Your task to perform on an android device: Toggle the flashlight Image 0: 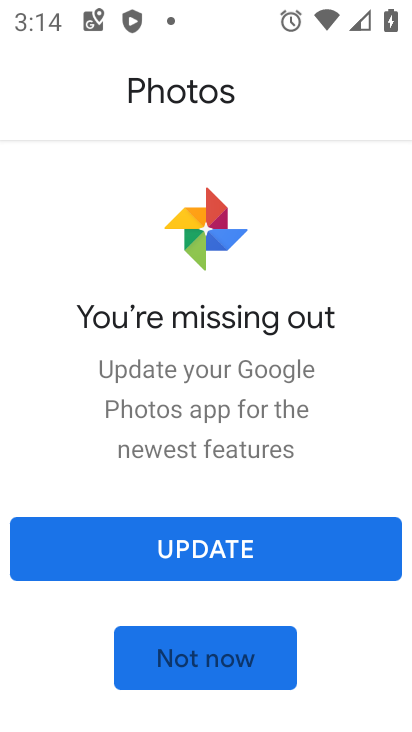
Step 0: press home button
Your task to perform on an android device: Toggle the flashlight Image 1: 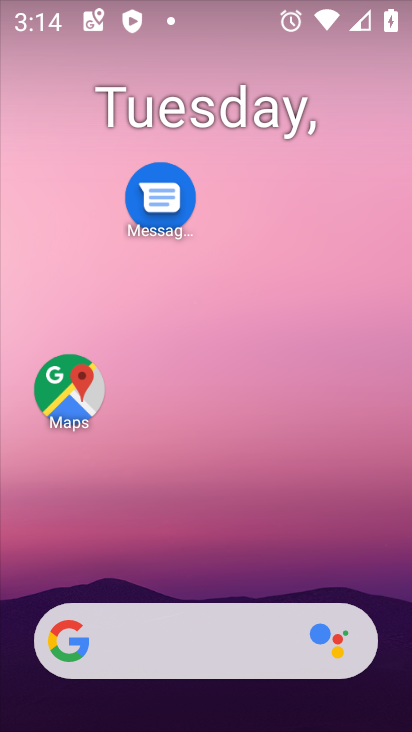
Step 1: drag from (197, 576) to (231, 252)
Your task to perform on an android device: Toggle the flashlight Image 2: 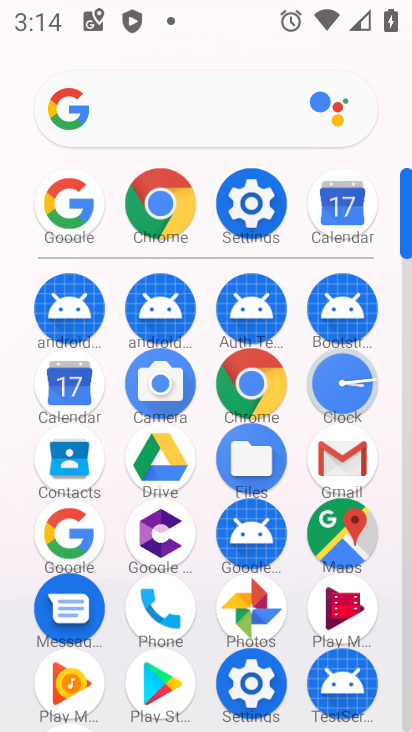
Step 2: click (247, 222)
Your task to perform on an android device: Toggle the flashlight Image 3: 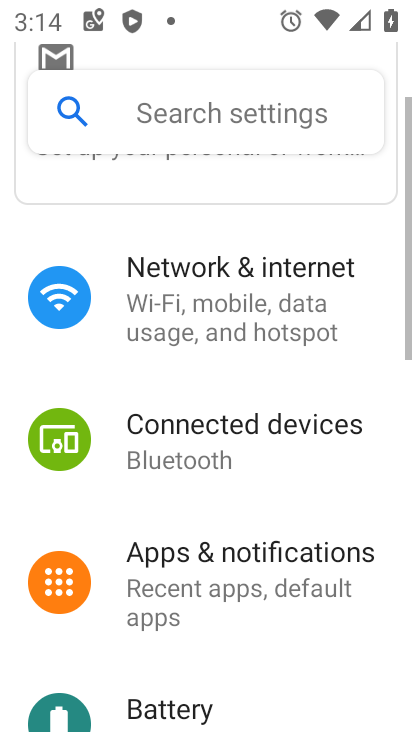
Step 3: task complete